Your task to perform on an android device: turn off smart reply in the gmail app Image 0: 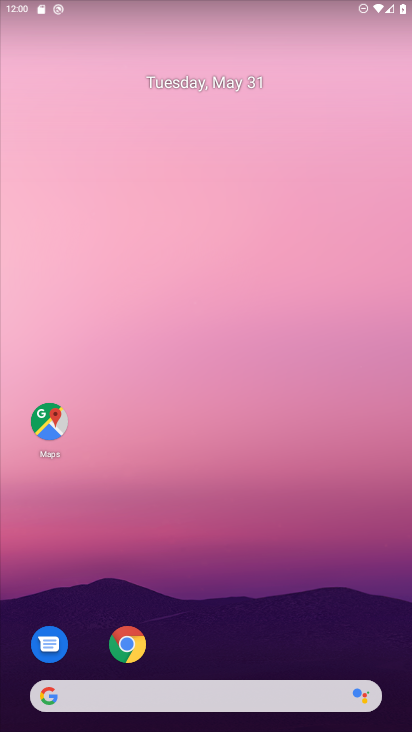
Step 0: drag from (411, 192) to (331, 4)
Your task to perform on an android device: turn off smart reply in the gmail app Image 1: 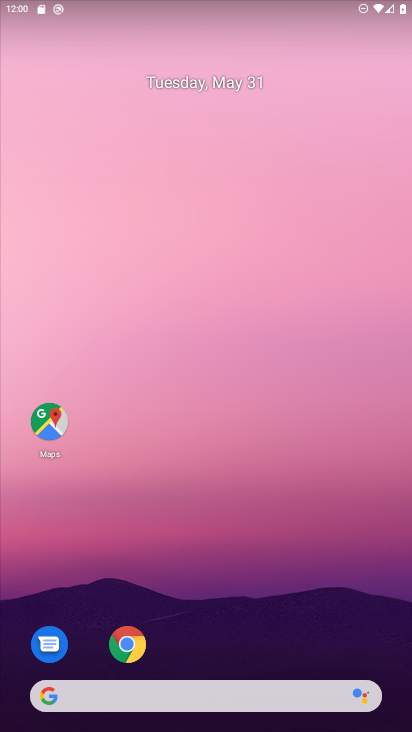
Step 1: drag from (213, 606) to (322, 260)
Your task to perform on an android device: turn off smart reply in the gmail app Image 2: 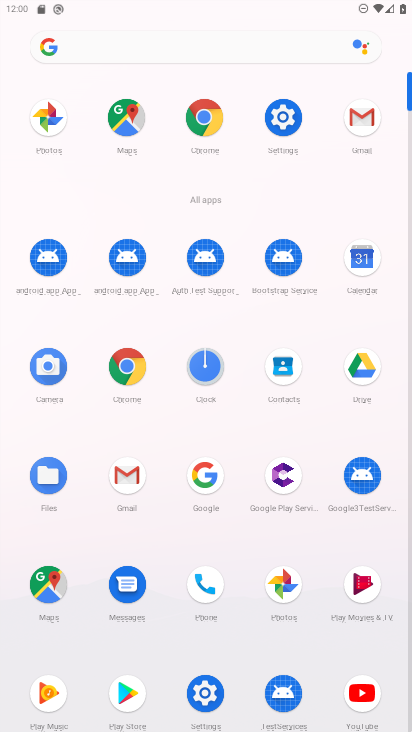
Step 2: click (113, 485)
Your task to perform on an android device: turn off smart reply in the gmail app Image 3: 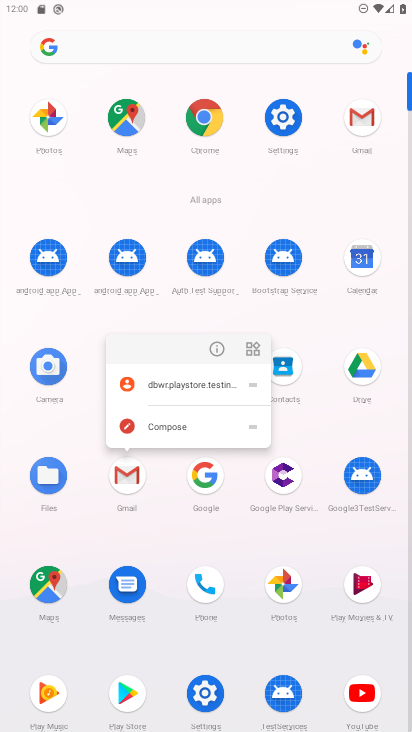
Step 3: click (214, 356)
Your task to perform on an android device: turn off smart reply in the gmail app Image 4: 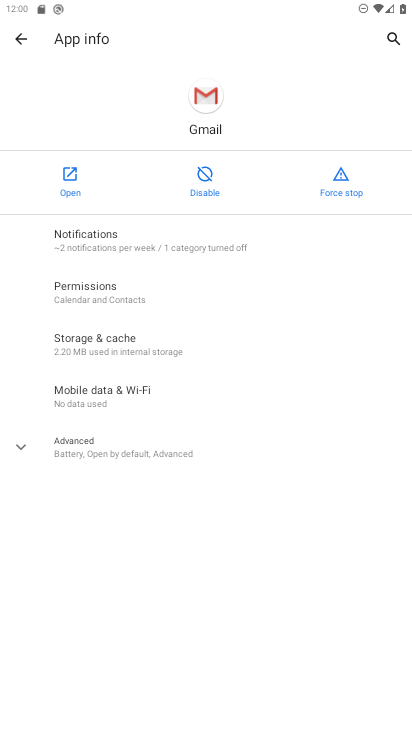
Step 4: click (47, 176)
Your task to perform on an android device: turn off smart reply in the gmail app Image 5: 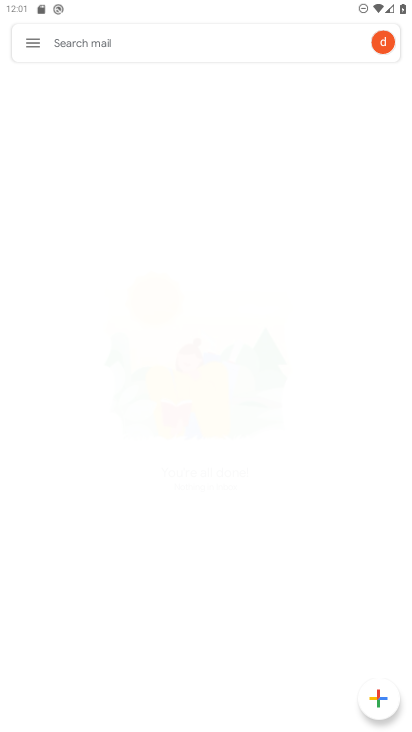
Step 5: drag from (198, 536) to (233, 84)
Your task to perform on an android device: turn off smart reply in the gmail app Image 6: 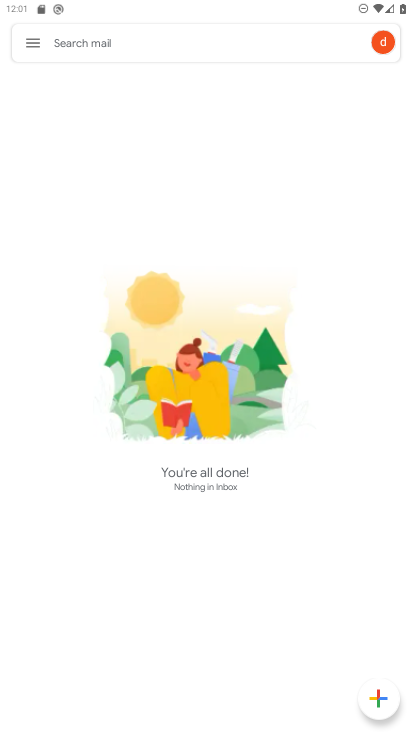
Step 6: click (26, 45)
Your task to perform on an android device: turn off smart reply in the gmail app Image 7: 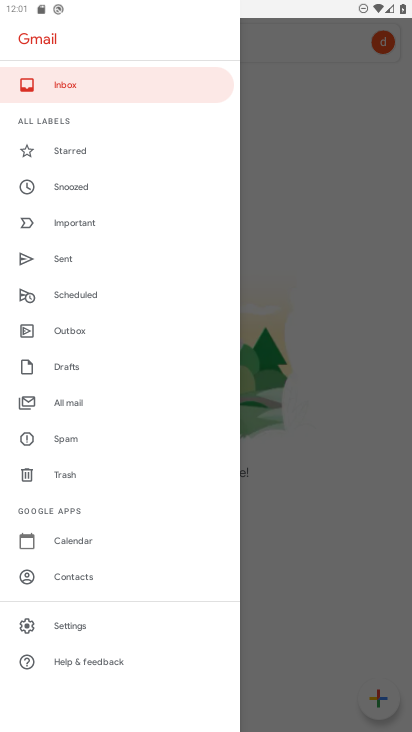
Step 7: click (67, 616)
Your task to perform on an android device: turn off smart reply in the gmail app Image 8: 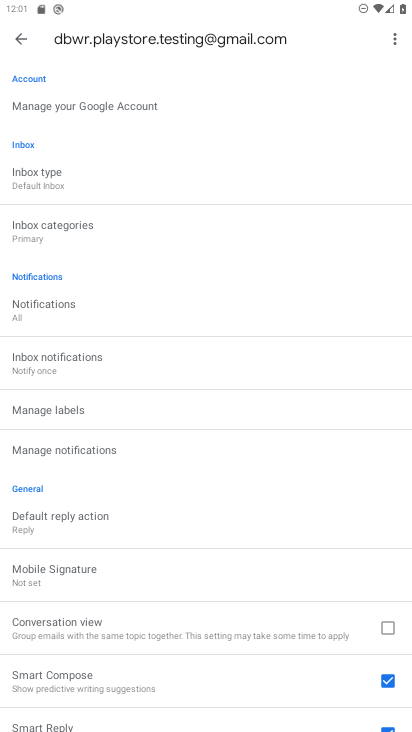
Step 8: drag from (141, 506) to (254, 129)
Your task to perform on an android device: turn off smart reply in the gmail app Image 9: 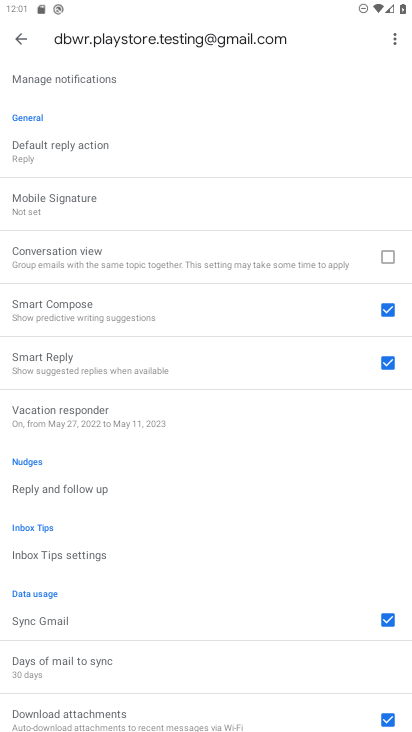
Step 9: click (382, 365)
Your task to perform on an android device: turn off smart reply in the gmail app Image 10: 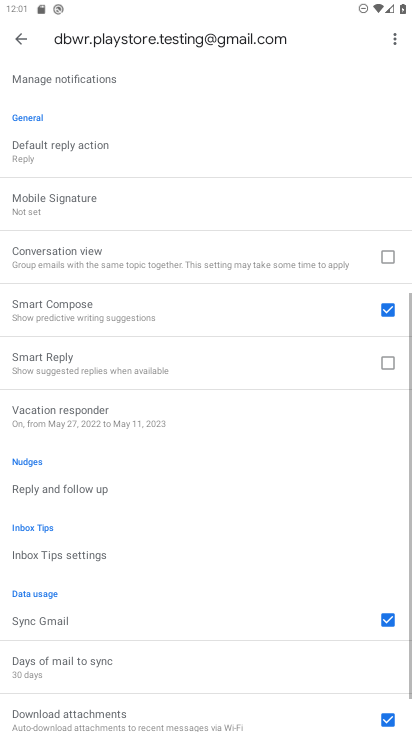
Step 10: task complete